Your task to perform on an android device: Do I have any events this weekend? Image 0: 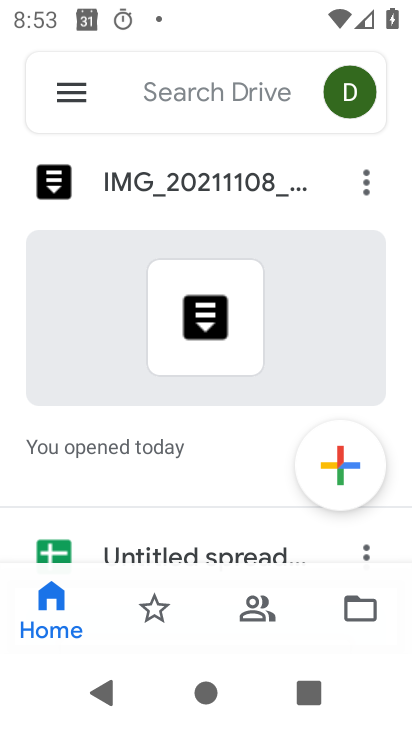
Step 0: press home button
Your task to perform on an android device: Do I have any events this weekend? Image 1: 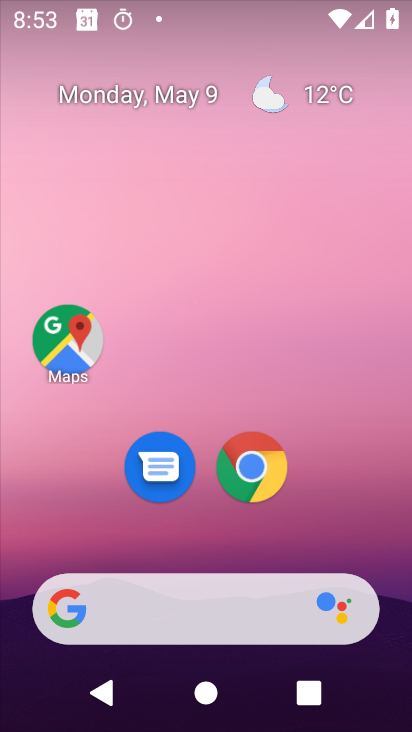
Step 1: drag from (381, 572) to (388, 442)
Your task to perform on an android device: Do I have any events this weekend? Image 2: 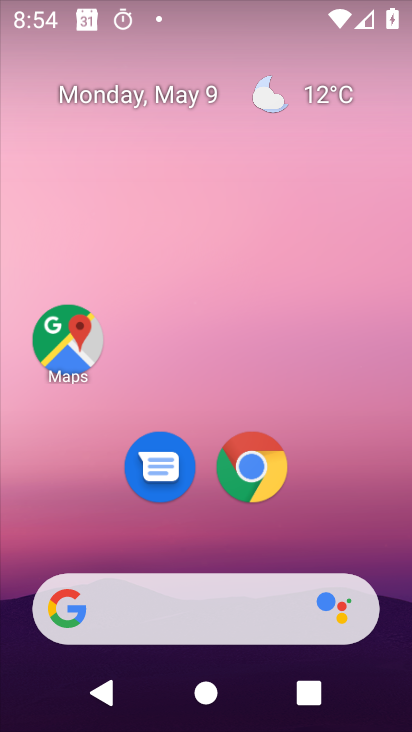
Step 2: drag from (361, 574) to (385, 23)
Your task to perform on an android device: Do I have any events this weekend? Image 3: 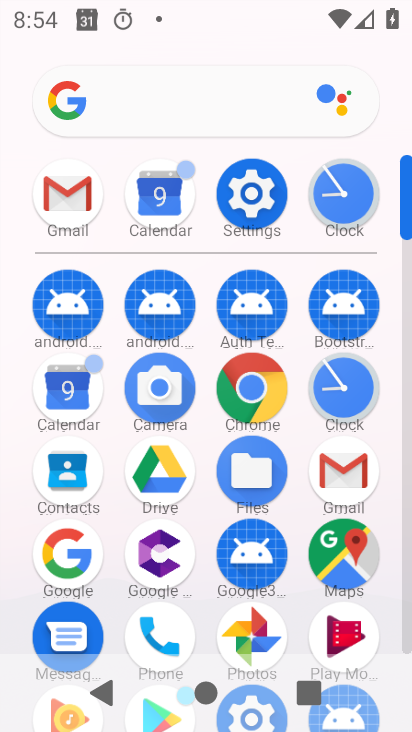
Step 3: click (151, 201)
Your task to perform on an android device: Do I have any events this weekend? Image 4: 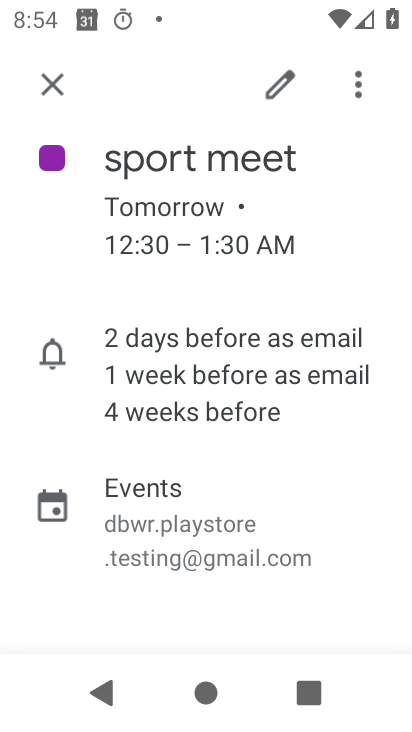
Step 4: click (45, 94)
Your task to perform on an android device: Do I have any events this weekend? Image 5: 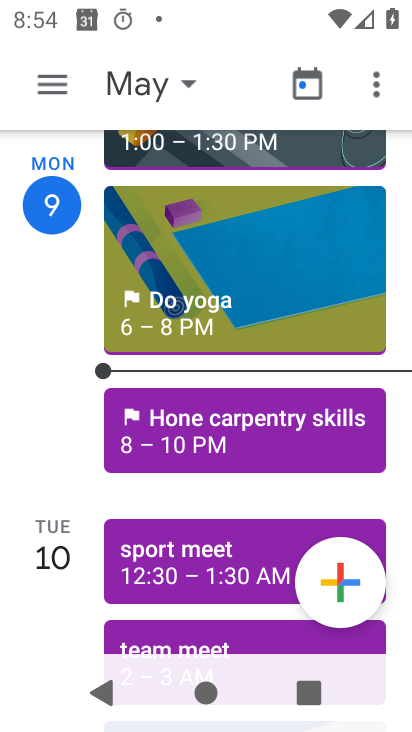
Step 5: drag from (195, 535) to (211, 114)
Your task to perform on an android device: Do I have any events this weekend? Image 6: 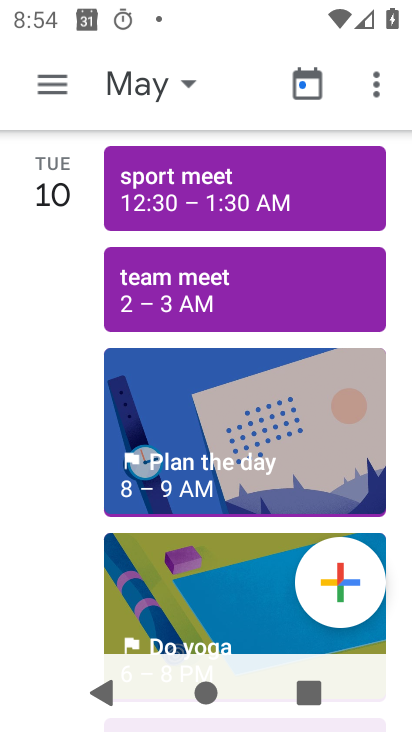
Step 6: drag from (188, 544) to (197, 143)
Your task to perform on an android device: Do I have any events this weekend? Image 7: 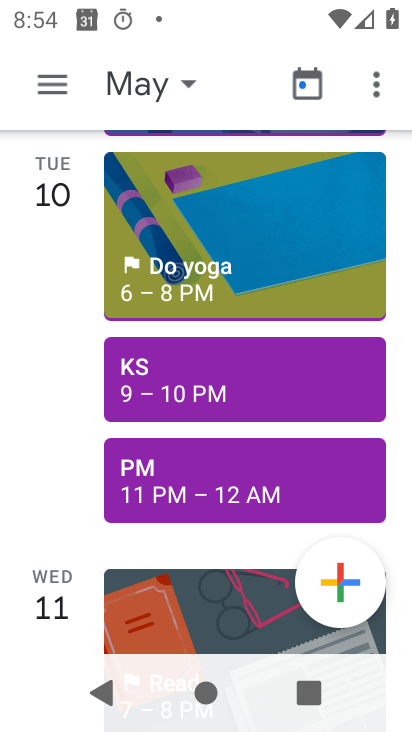
Step 7: drag from (174, 568) to (194, 130)
Your task to perform on an android device: Do I have any events this weekend? Image 8: 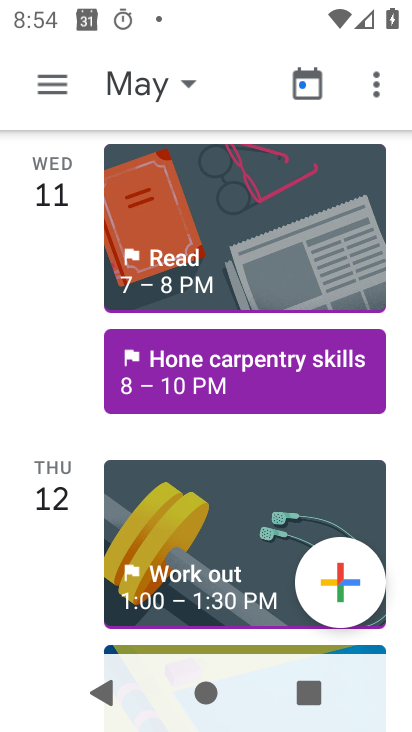
Step 8: drag from (177, 544) to (187, 138)
Your task to perform on an android device: Do I have any events this weekend? Image 9: 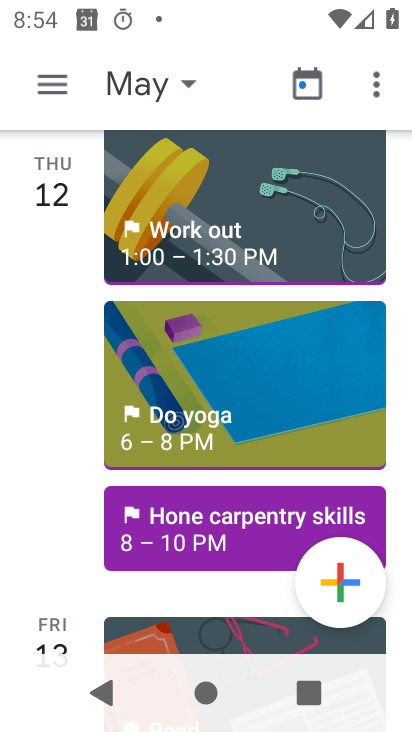
Step 9: drag from (176, 519) to (181, 123)
Your task to perform on an android device: Do I have any events this weekend? Image 10: 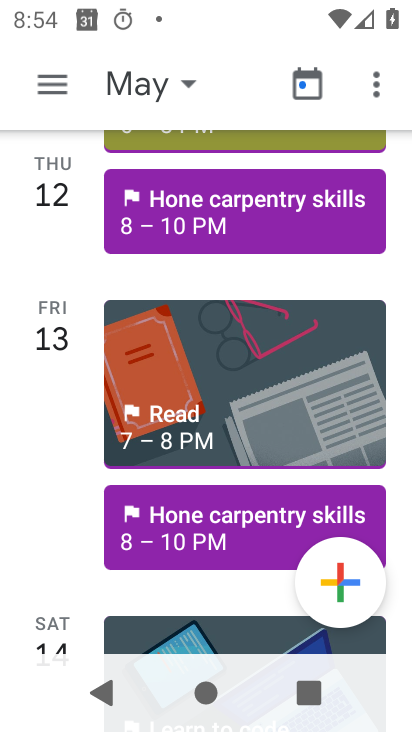
Step 10: drag from (158, 526) to (180, 169)
Your task to perform on an android device: Do I have any events this weekend? Image 11: 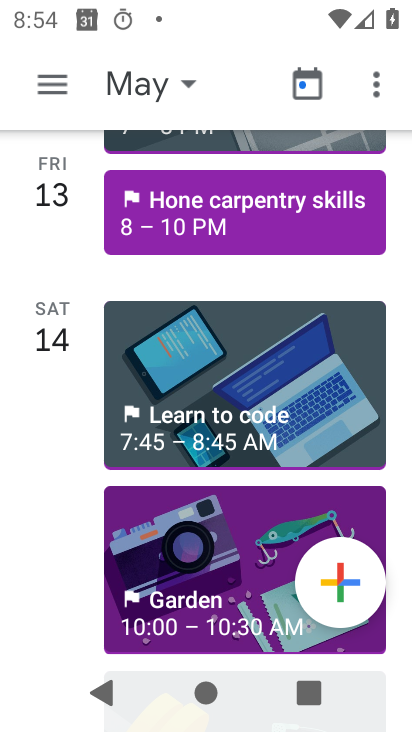
Step 11: drag from (182, 502) to (180, 251)
Your task to perform on an android device: Do I have any events this weekend? Image 12: 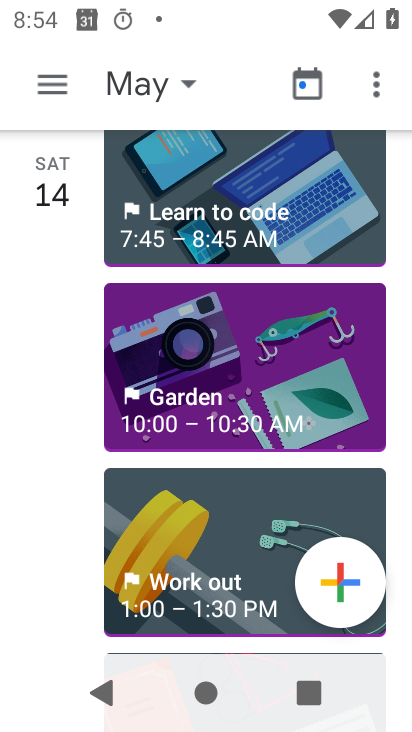
Step 12: click (177, 399)
Your task to perform on an android device: Do I have any events this weekend? Image 13: 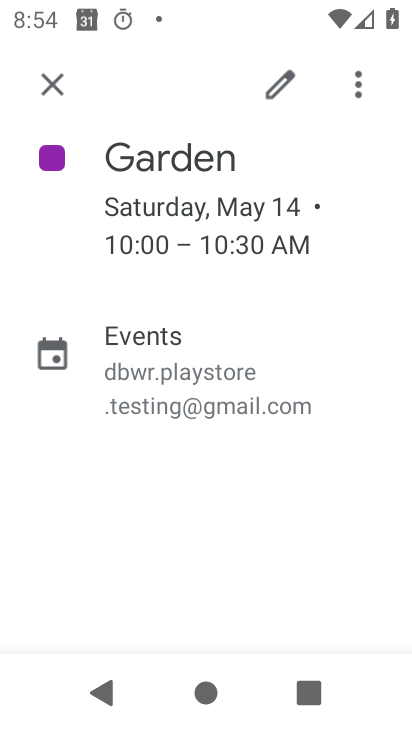
Step 13: task complete